Your task to perform on an android device: What's the weather going to be tomorrow? Image 0: 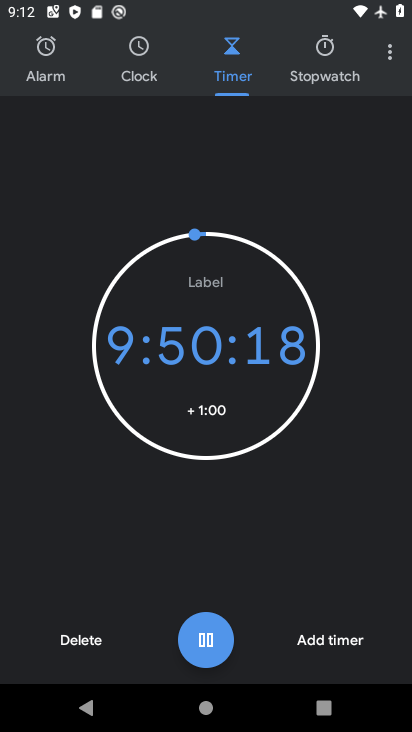
Step 0: press home button
Your task to perform on an android device: What's the weather going to be tomorrow? Image 1: 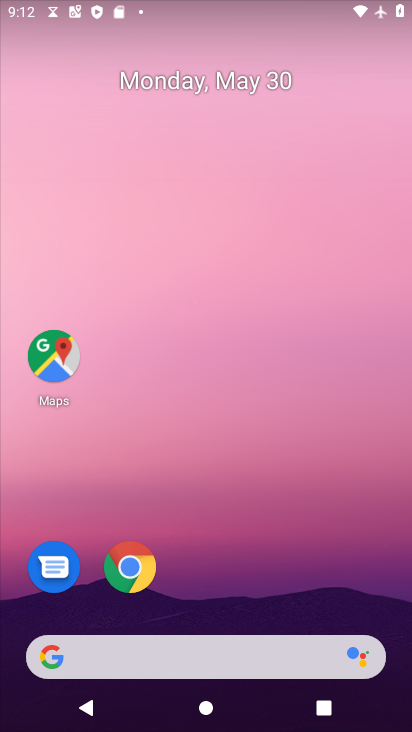
Step 1: click (146, 584)
Your task to perform on an android device: What's the weather going to be tomorrow? Image 2: 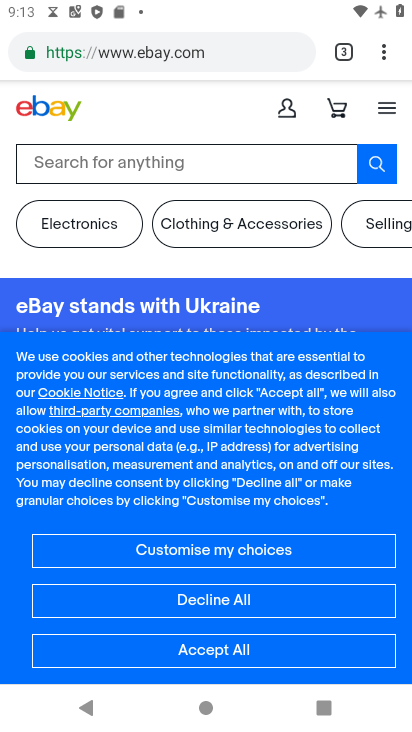
Step 2: click (233, 58)
Your task to perform on an android device: What's the weather going to be tomorrow? Image 3: 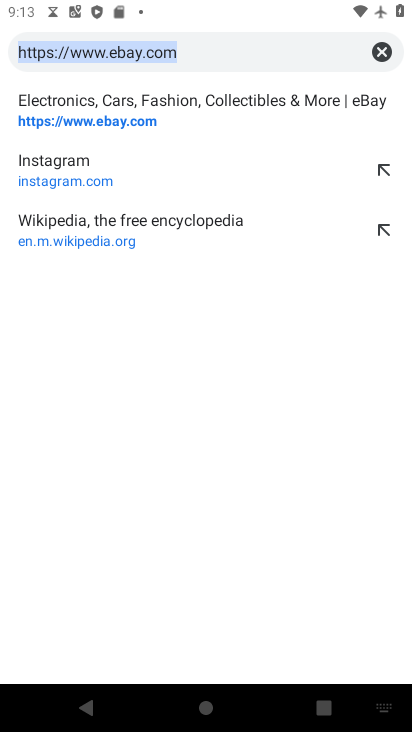
Step 3: type "What's the weather going to be tomorrow?"
Your task to perform on an android device: What's the weather going to be tomorrow? Image 4: 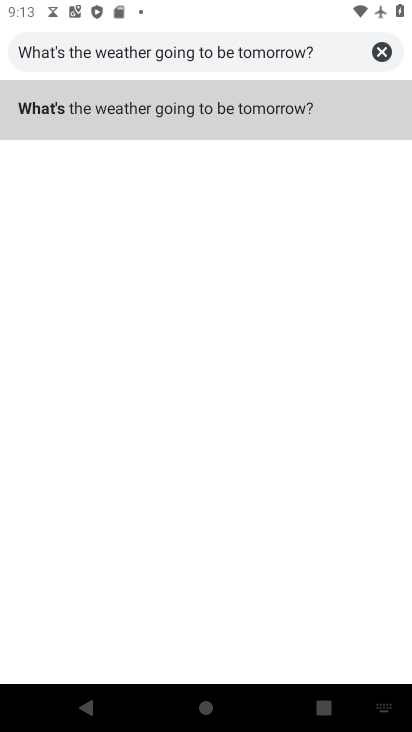
Step 4: click (231, 105)
Your task to perform on an android device: What's the weather going to be tomorrow? Image 5: 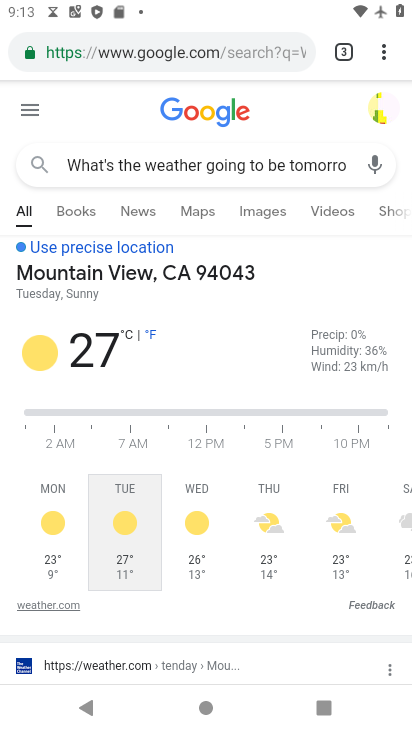
Step 5: click (195, 517)
Your task to perform on an android device: What's the weather going to be tomorrow? Image 6: 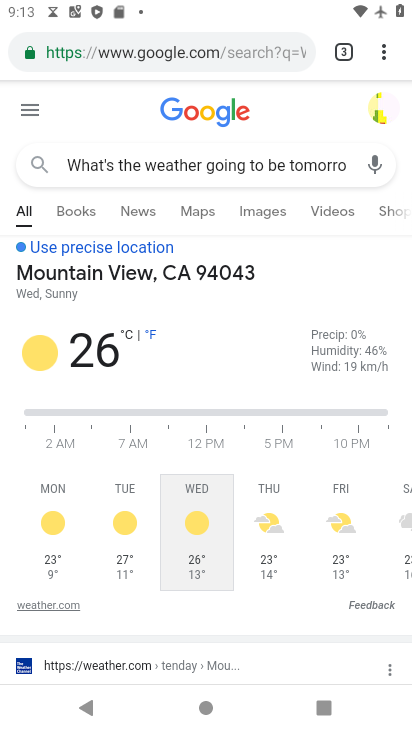
Step 6: task complete